Your task to perform on an android device: change text size in settings app Image 0: 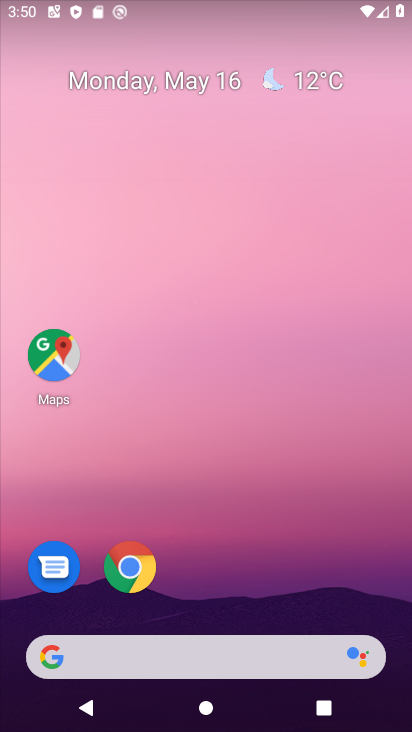
Step 0: drag from (263, 547) to (217, 17)
Your task to perform on an android device: change text size in settings app Image 1: 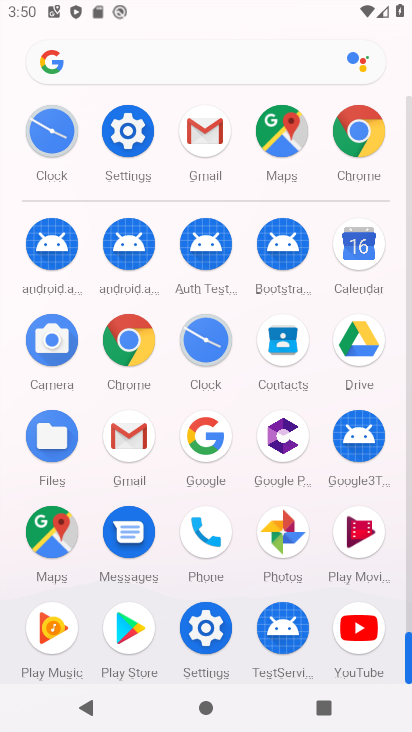
Step 1: drag from (8, 485) to (0, 179)
Your task to perform on an android device: change text size in settings app Image 2: 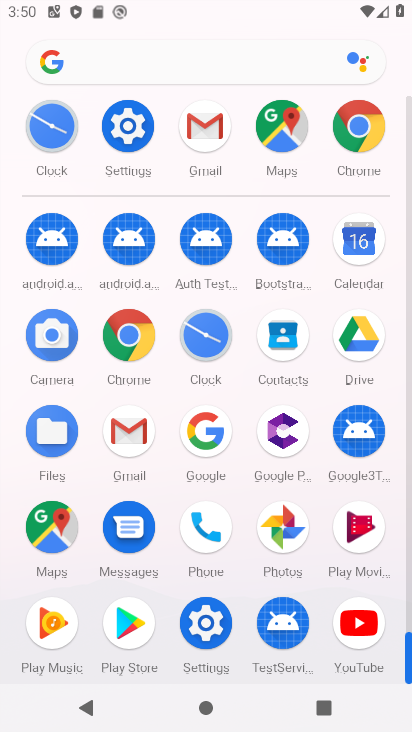
Step 2: click (210, 619)
Your task to perform on an android device: change text size in settings app Image 3: 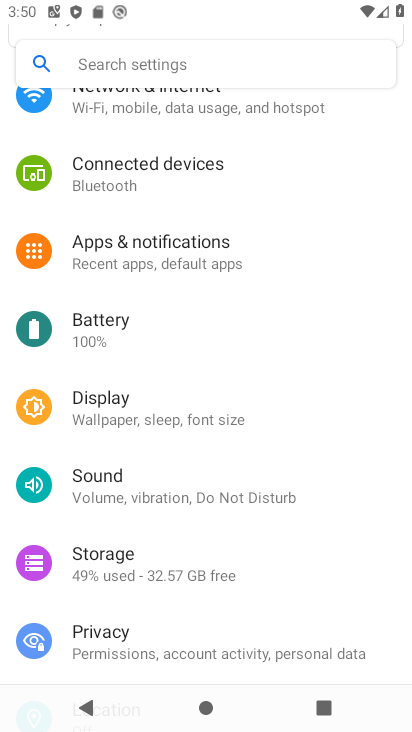
Step 3: drag from (227, 433) to (243, 135)
Your task to perform on an android device: change text size in settings app Image 4: 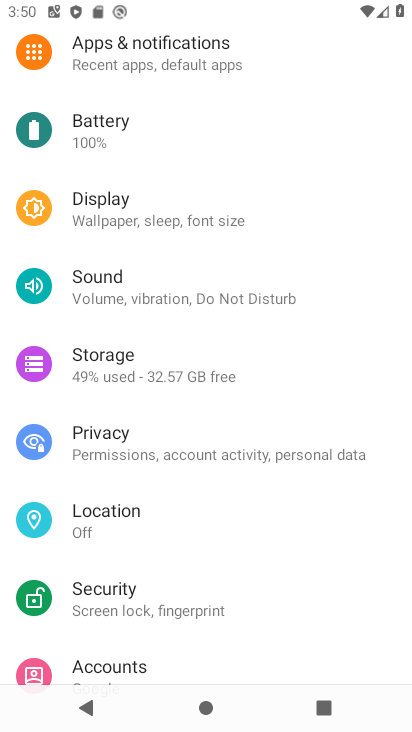
Step 4: drag from (207, 562) to (245, 216)
Your task to perform on an android device: change text size in settings app Image 5: 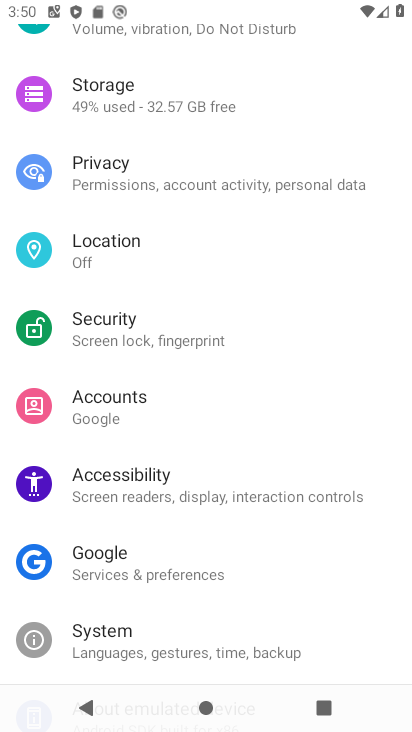
Step 5: drag from (191, 535) to (194, 170)
Your task to perform on an android device: change text size in settings app Image 6: 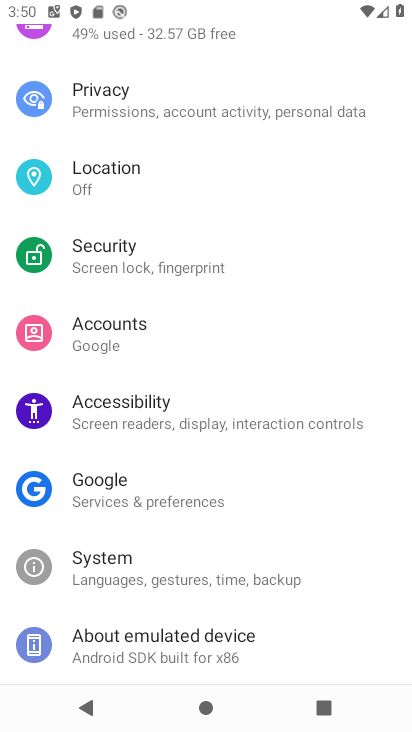
Step 6: drag from (210, 323) to (205, 567)
Your task to perform on an android device: change text size in settings app Image 7: 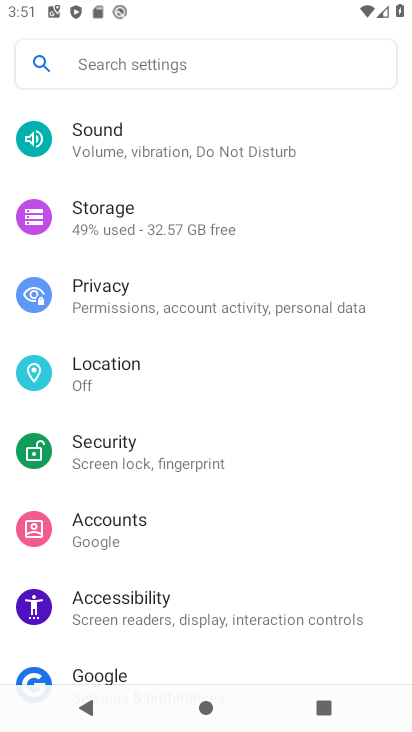
Step 7: drag from (221, 224) to (218, 546)
Your task to perform on an android device: change text size in settings app Image 8: 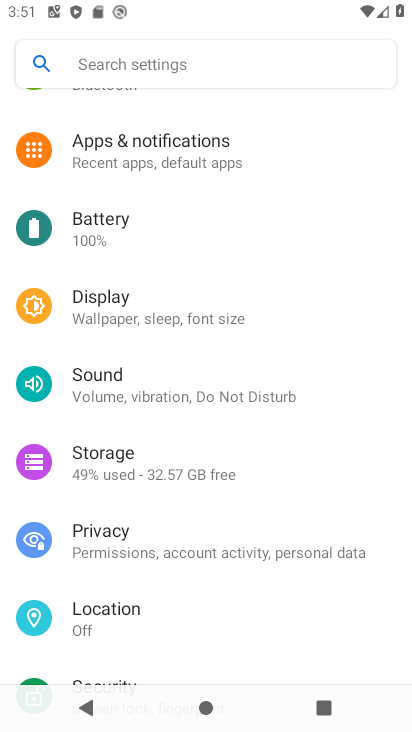
Step 8: click (138, 316)
Your task to perform on an android device: change text size in settings app Image 9: 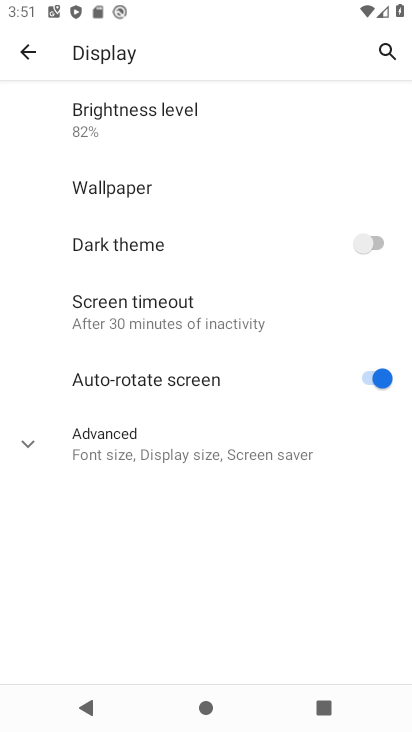
Step 9: click (112, 430)
Your task to perform on an android device: change text size in settings app Image 10: 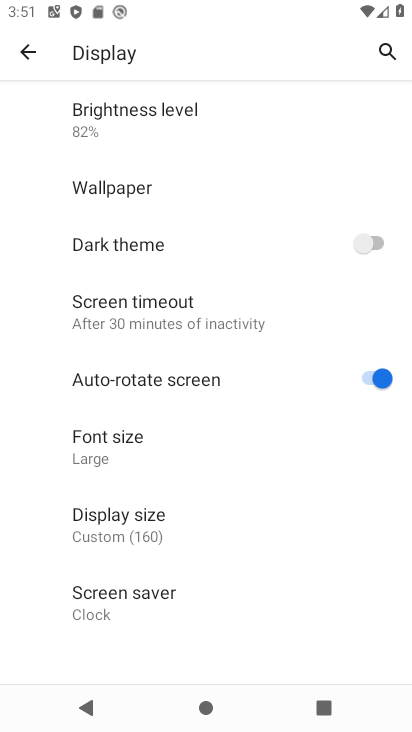
Step 10: click (138, 441)
Your task to perform on an android device: change text size in settings app Image 11: 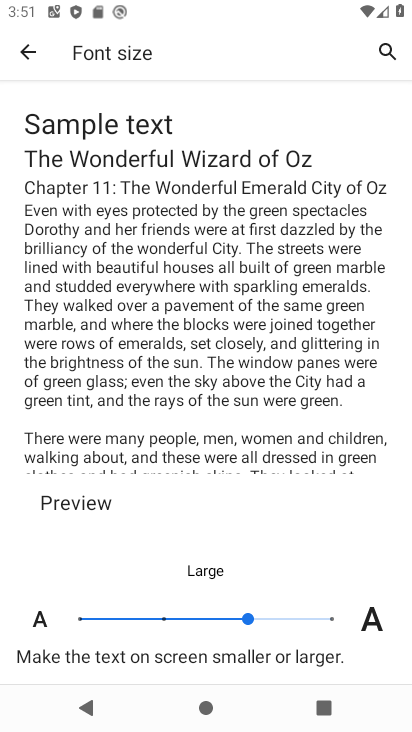
Step 11: click (320, 617)
Your task to perform on an android device: change text size in settings app Image 12: 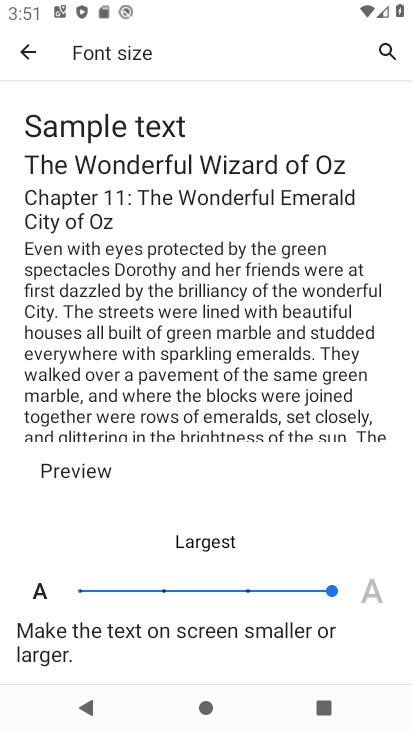
Step 12: task complete